Your task to perform on an android device: toggle wifi Image 0: 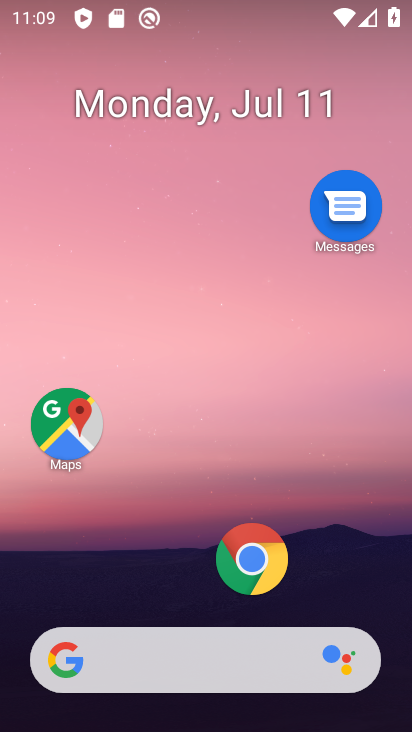
Step 0: drag from (355, 576) to (352, 147)
Your task to perform on an android device: toggle wifi Image 1: 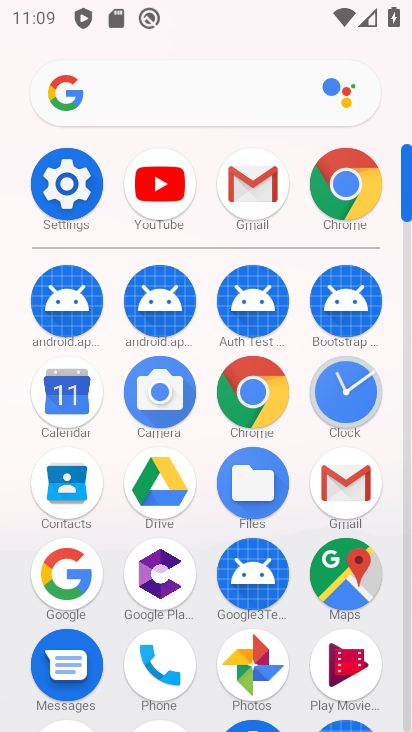
Step 1: click (77, 203)
Your task to perform on an android device: toggle wifi Image 2: 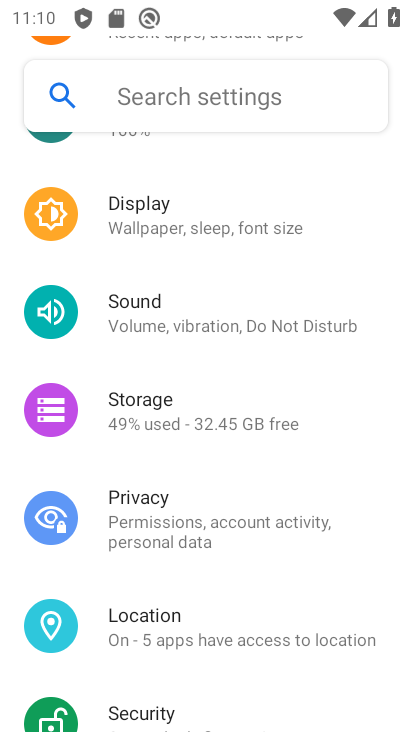
Step 2: drag from (363, 245) to (361, 394)
Your task to perform on an android device: toggle wifi Image 3: 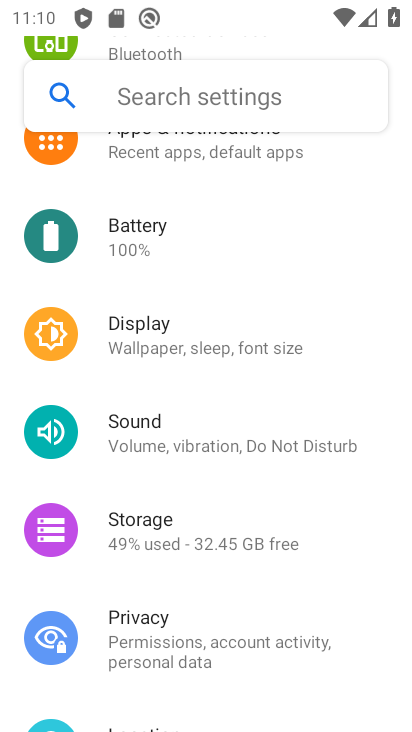
Step 3: drag from (342, 205) to (345, 366)
Your task to perform on an android device: toggle wifi Image 4: 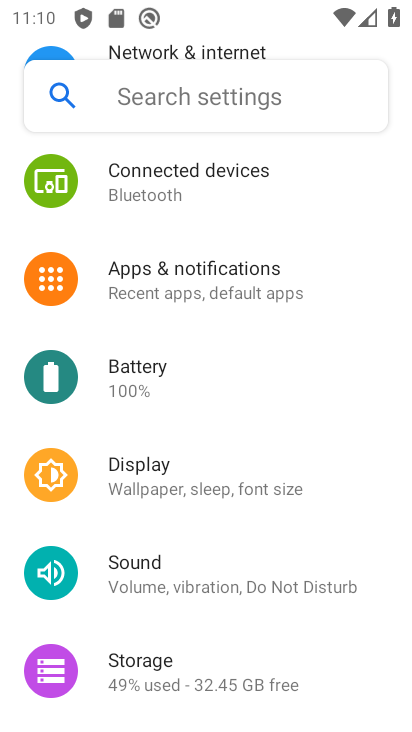
Step 4: drag from (343, 212) to (355, 405)
Your task to perform on an android device: toggle wifi Image 5: 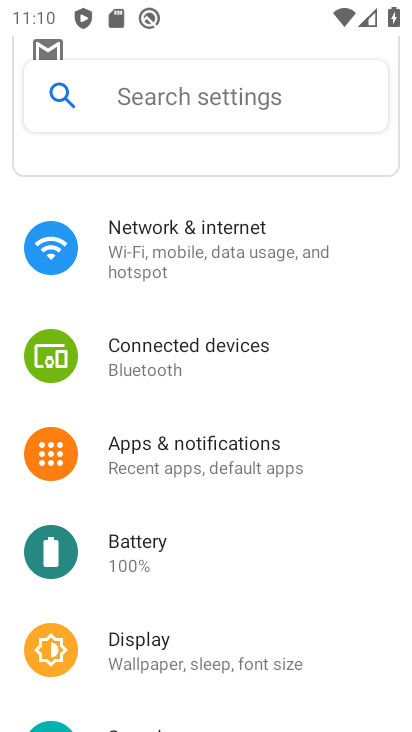
Step 5: drag from (358, 210) to (381, 447)
Your task to perform on an android device: toggle wifi Image 6: 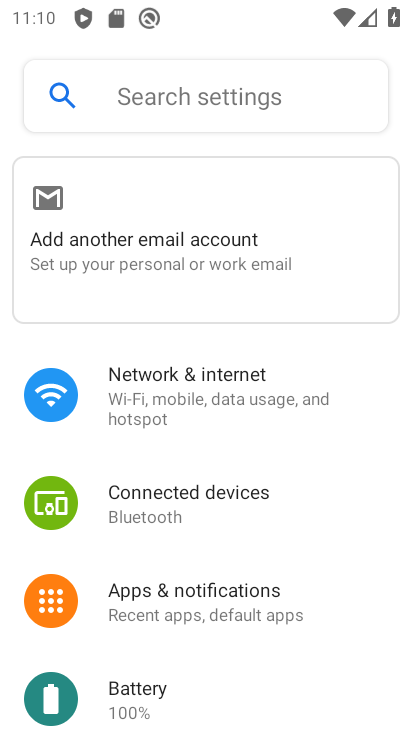
Step 6: click (232, 385)
Your task to perform on an android device: toggle wifi Image 7: 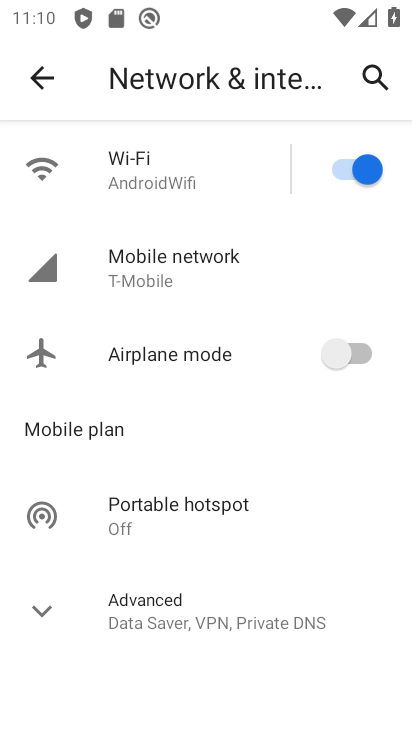
Step 7: click (353, 160)
Your task to perform on an android device: toggle wifi Image 8: 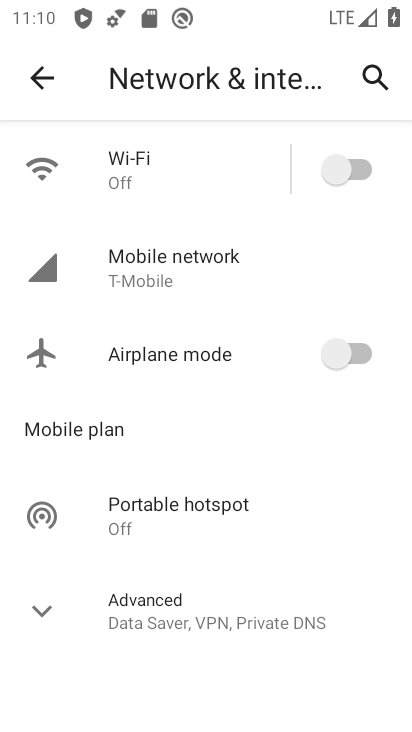
Step 8: task complete